Your task to perform on an android device: Search for Italian restaurants on Maps Image 0: 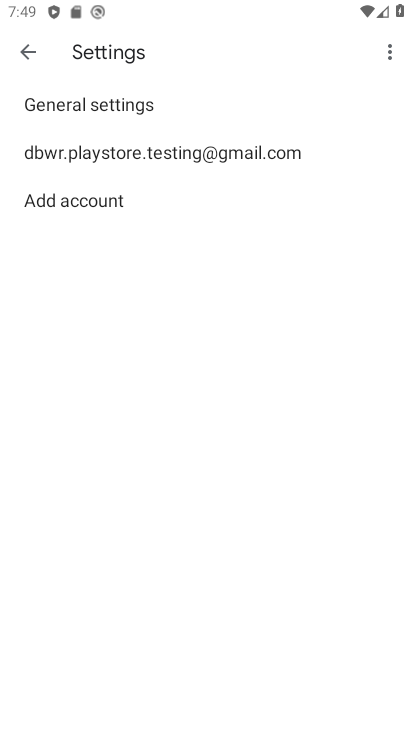
Step 0: press home button
Your task to perform on an android device: Search for Italian restaurants on Maps Image 1: 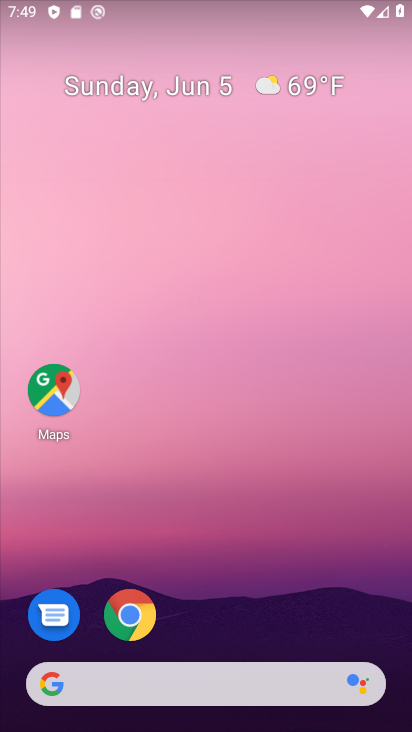
Step 1: click (59, 399)
Your task to perform on an android device: Search for Italian restaurants on Maps Image 2: 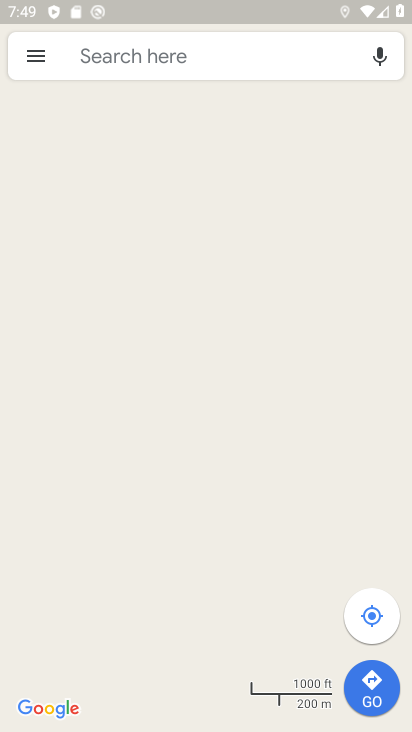
Step 2: click (156, 62)
Your task to perform on an android device: Search for Italian restaurants on Maps Image 3: 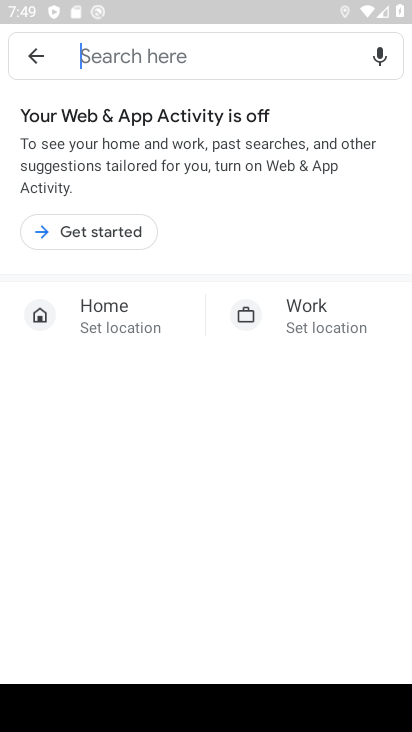
Step 3: click (30, 57)
Your task to perform on an android device: Search for Italian restaurants on Maps Image 4: 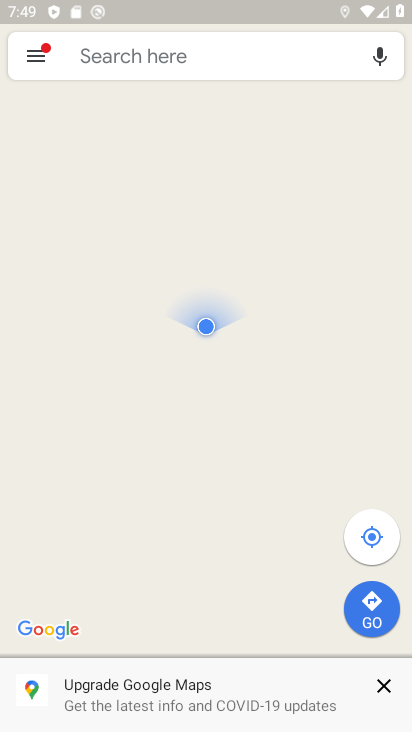
Step 4: click (173, 58)
Your task to perform on an android device: Search for Italian restaurants on Maps Image 5: 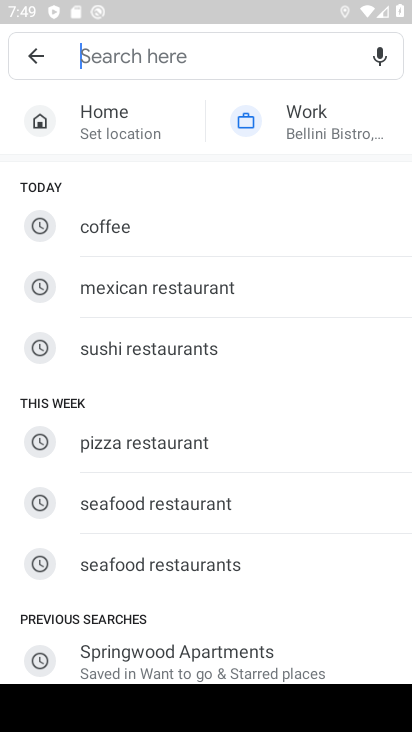
Step 5: type "italian restaurants"
Your task to perform on an android device: Search for Italian restaurants on Maps Image 6: 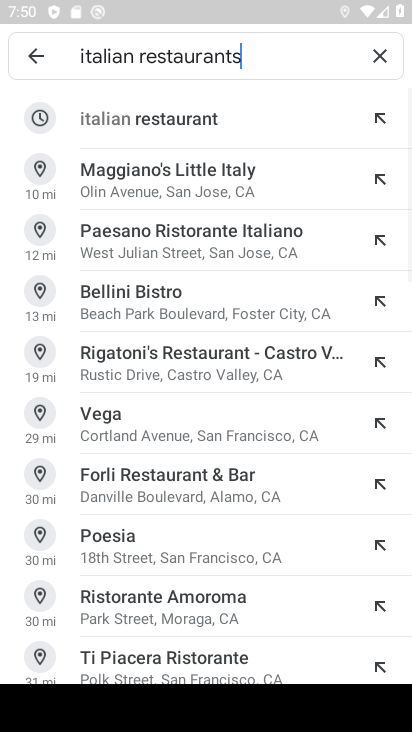
Step 6: click (192, 118)
Your task to perform on an android device: Search for Italian restaurants on Maps Image 7: 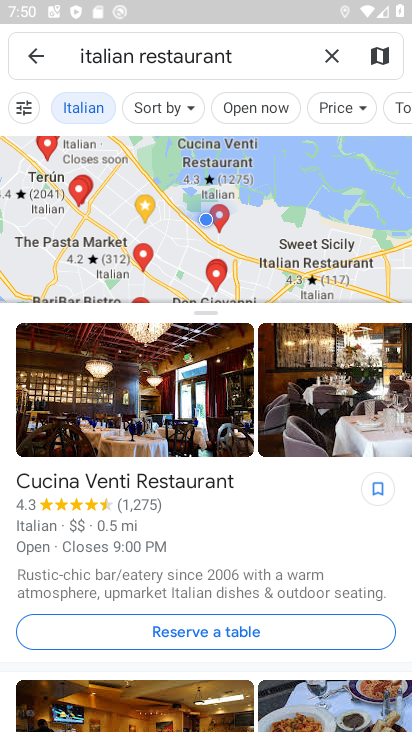
Step 7: task complete